Your task to perform on an android device: create a new album in the google photos Image 0: 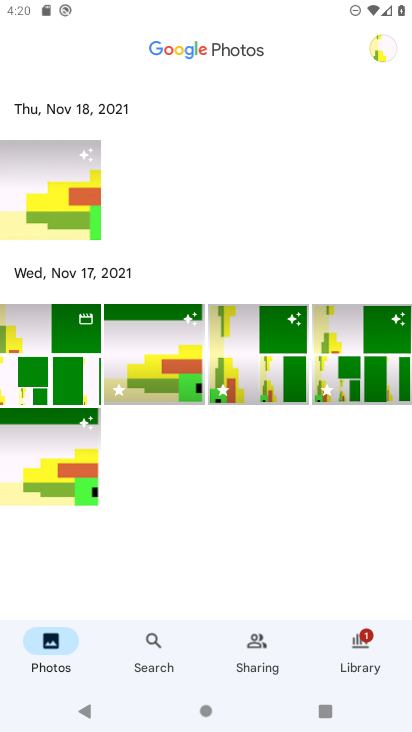
Step 0: click (348, 645)
Your task to perform on an android device: create a new album in the google photos Image 1: 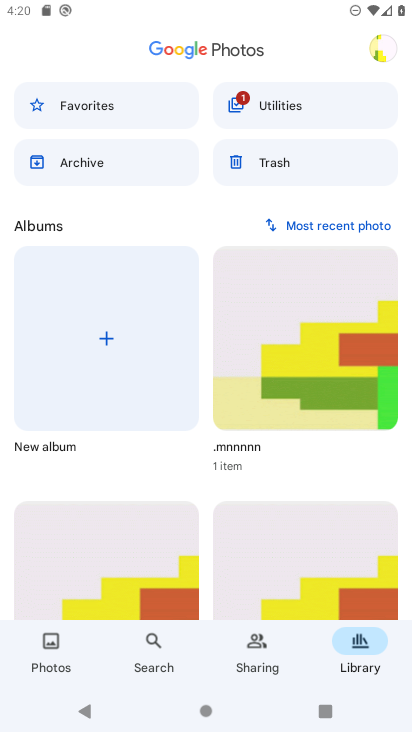
Step 1: click (121, 361)
Your task to perform on an android device: create a new album in the google photos Image 2: 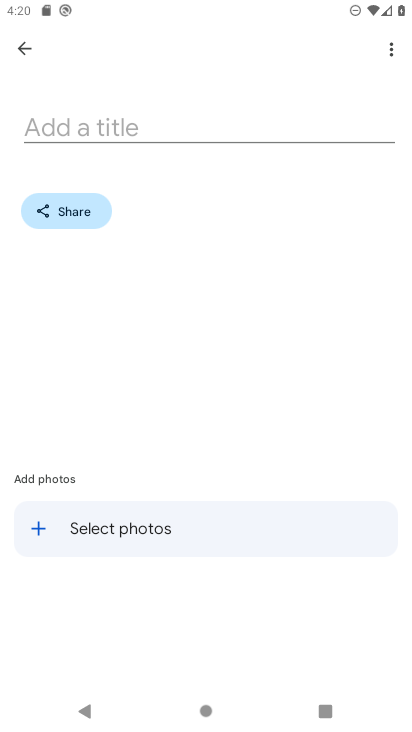
Step 2: click (132, 138)
Your task to perform on an android device: create a new album in the google photos Image 3: 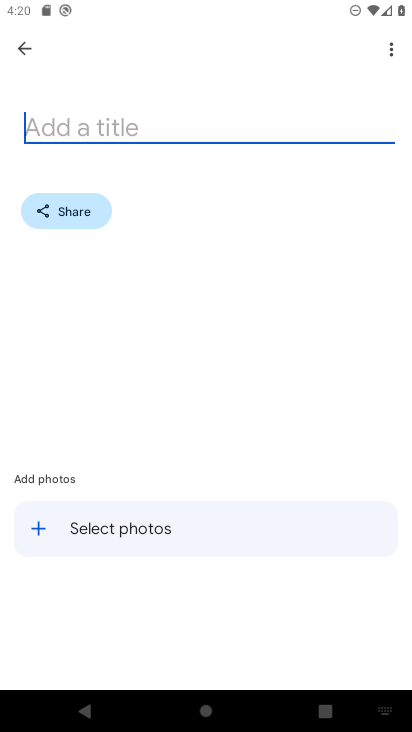
Step 3: click (322, 133)
Your task to perform on an android device: create a new album in the google photos Image 4: 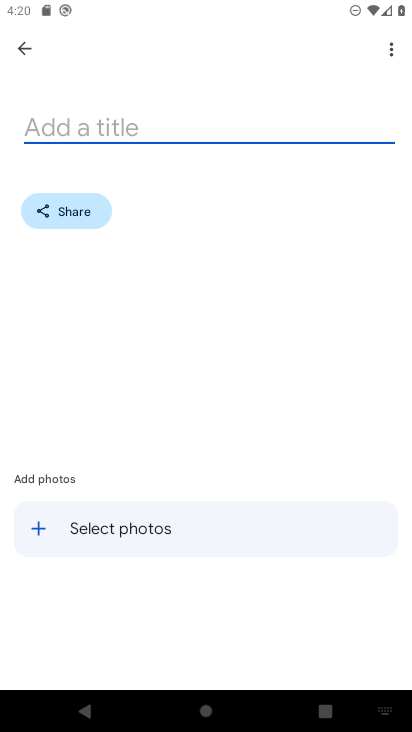
Step 4: type "dsadcds"
Your task to perform on an android device: create a new album in the google photos Image 5: 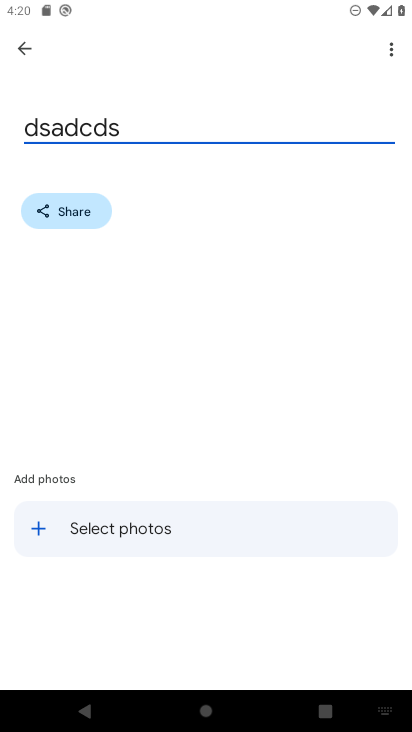
Step 5: click (54, 524)
Your task to perform on an android device: create a new album in the google photos Image 6: 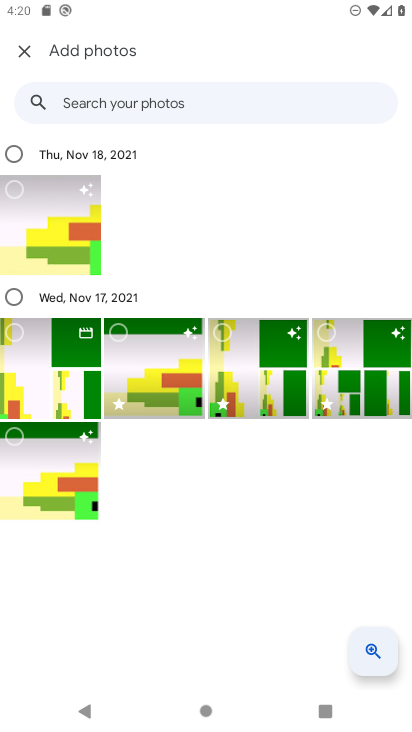
Step 6: click (47, 140)
Your task to perform on an android device: create a new album in the google photos Image 7: 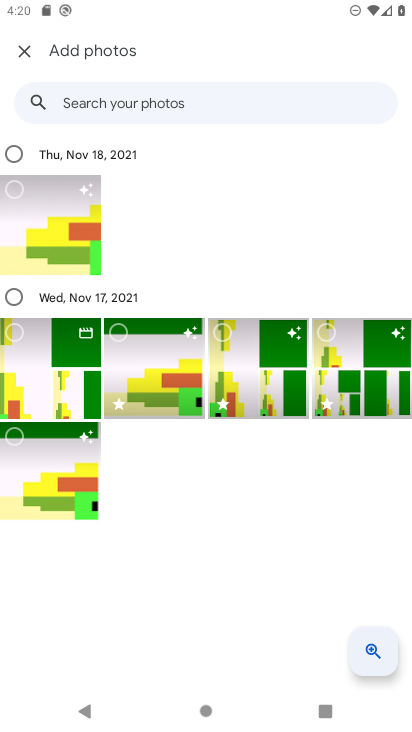
Step 7: click (22, 291)
Your task to perform on an android device: create a new album in the google photos Image 8: 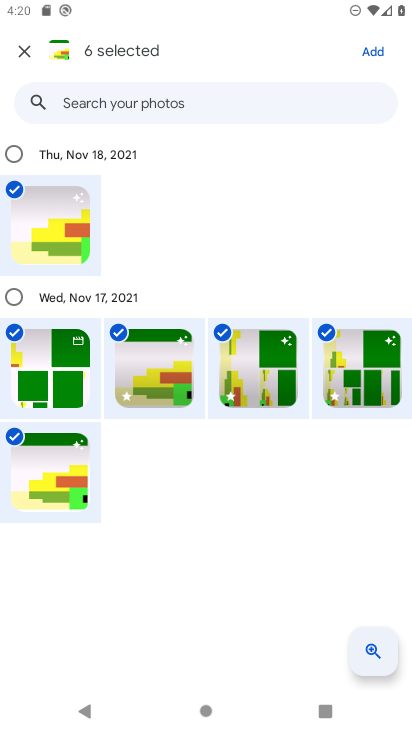
Step 8: click (372, 35)
Your task to perform on an android device: create a new album in the google photos Image 9: 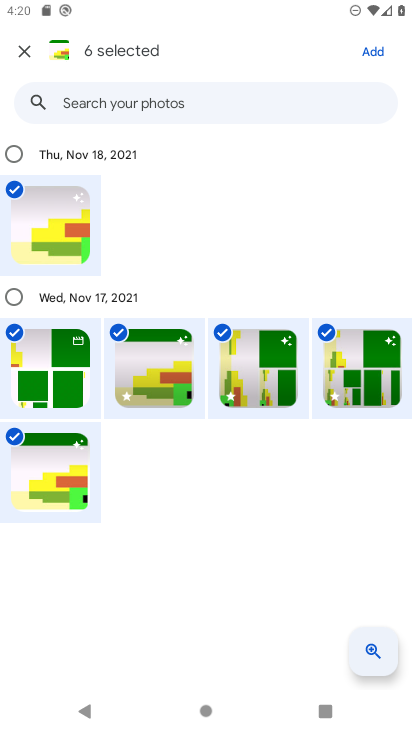
Step 9: click (372, 49)
Your task to perform on an android device: create a new album in the google photos Image 10: 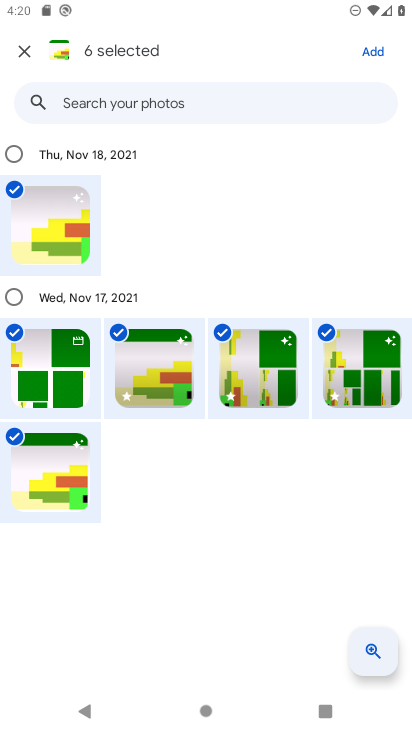
Step 10: task complete